Your task to perform on an android device: See recent photos Image 0: 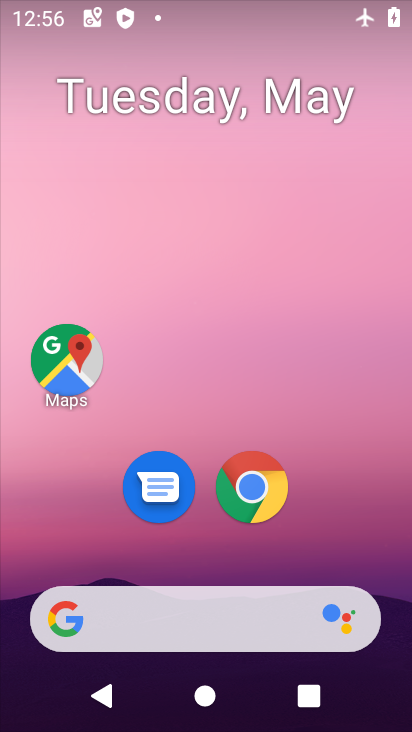
Step 0: drag from (322, 497) to (318, 65)
Your task to perform on an android device: See recent photos Image 1: 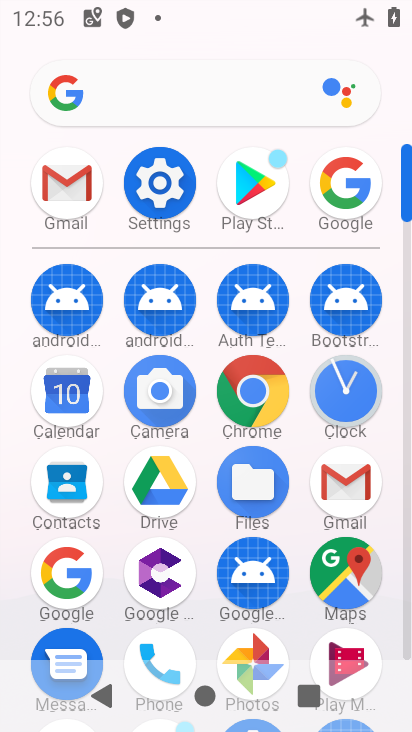
Step 1: click (264, 643)
Your task to perform on an android device: See recent photos Image 2: 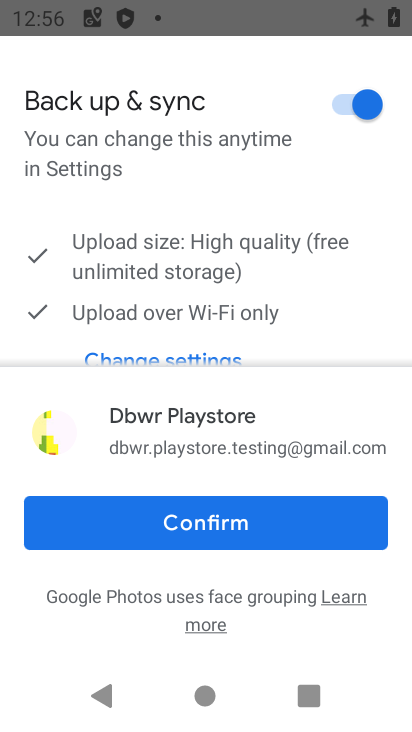
Step 2: click (309, 529)
Your task to perform on an android device: See recent photos Image 3: 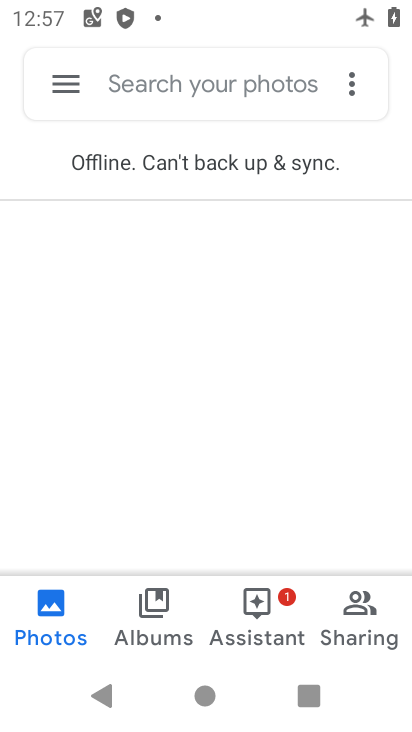
Step 3: click (156, 610)
Your task to perform on an android device: See recent photos Image 4: 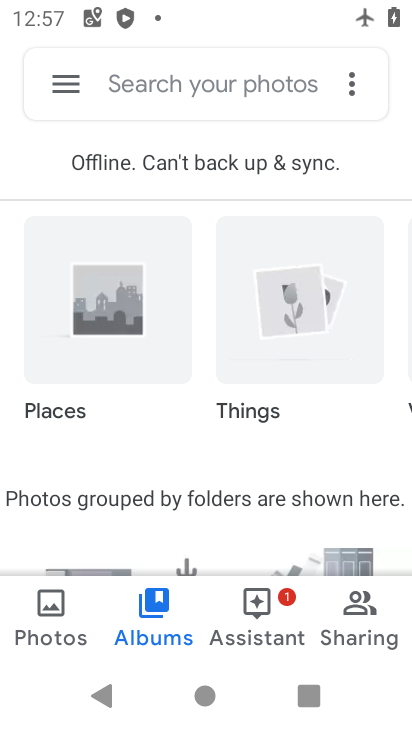
Step 4: drag from (228, 499) to (247, 243)
Your task to perform on an android device: See recent photos Image 5: 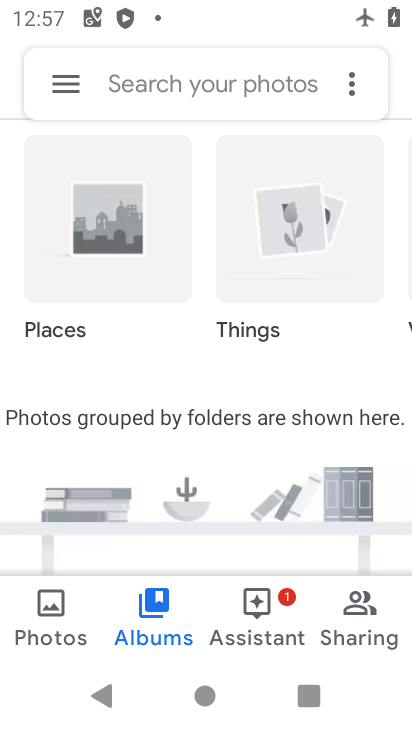
Step 5: click (210, 74)
Your task to perform on an android device: See recent photos Image 6: 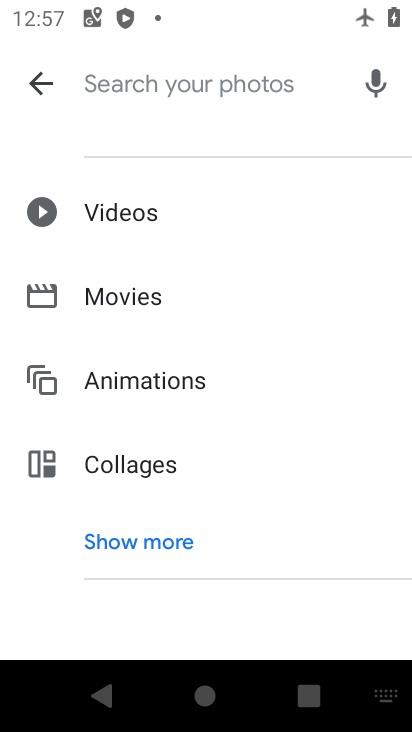
Step 6: click (165, 539)
Your task to perform on an android device: See recent photos Image 7: 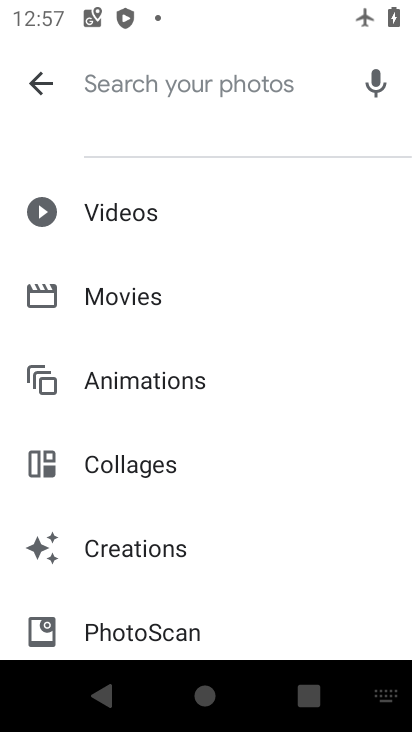
Step 7: drag from (235, 600) to (241, 281)
Your task to perform on an android device: See recent photos Image 8: 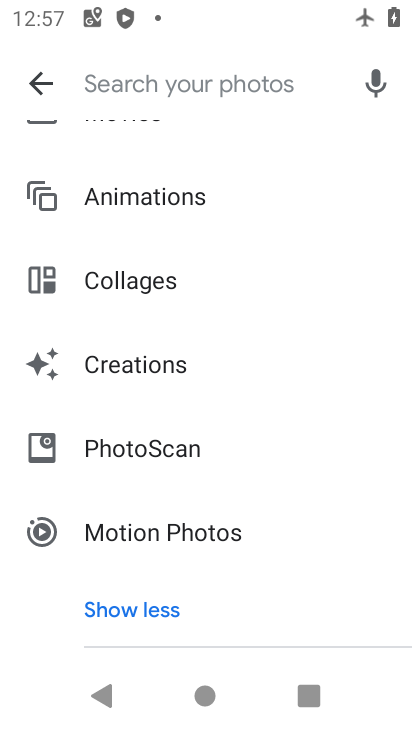
Step 8: click (229, 91)
Your task to perform on an android device: See recent photos Image 9: 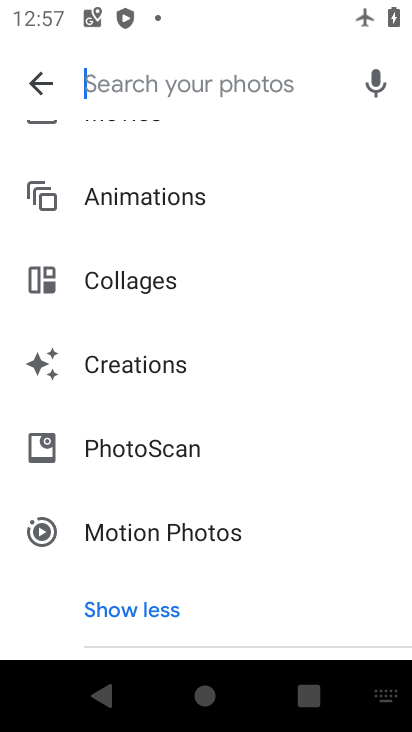
Step 9: type "recent photos"
Your task to perform on an android device: See recent photos Image 10: 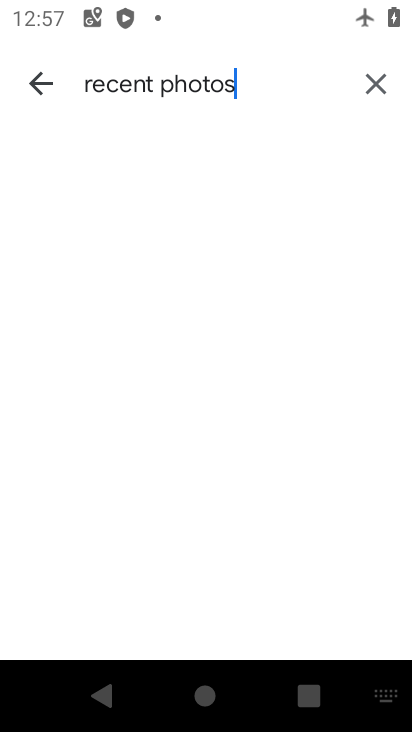
Step 10: task complete